Your task to perform on an android device: What's the weather? Image 0: 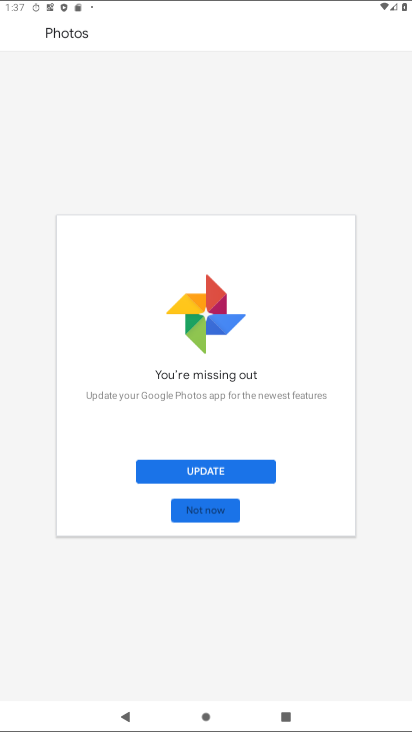
Step 0: press home button
Your task to perform on an android device: What's the weather? Image 1: 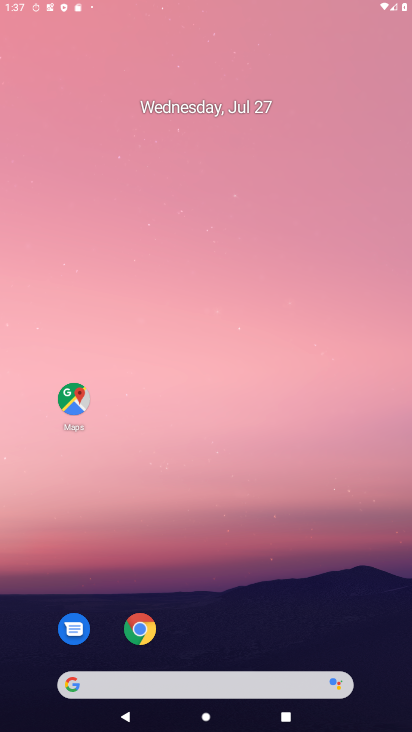
Step 1: drag from (375, 663) to (180, 17)
Your task to perform on an android device: What's the weather? Image 2: 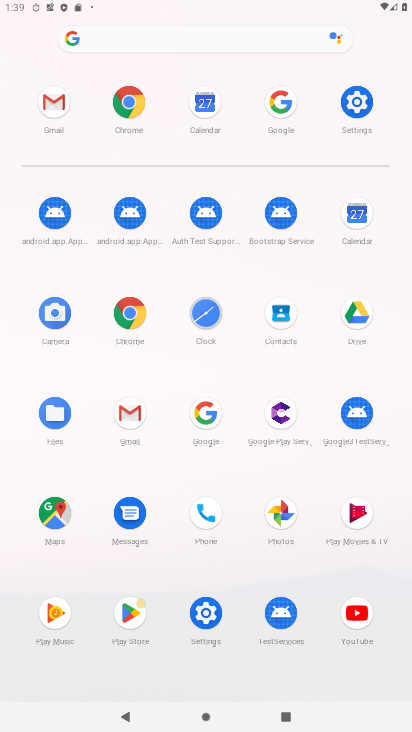
Step 2: click (195, 420)
Your task to perform on an android device: What's the weather? Image 3: 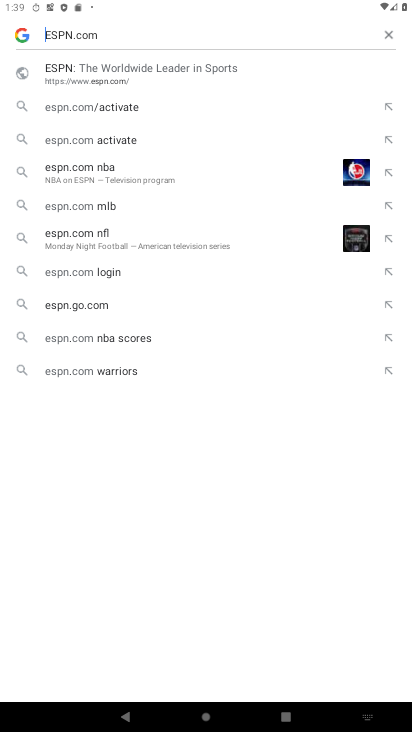
Step 3: click (385, 28)
Your task to perform on an android device: What's the weather? Image 4: 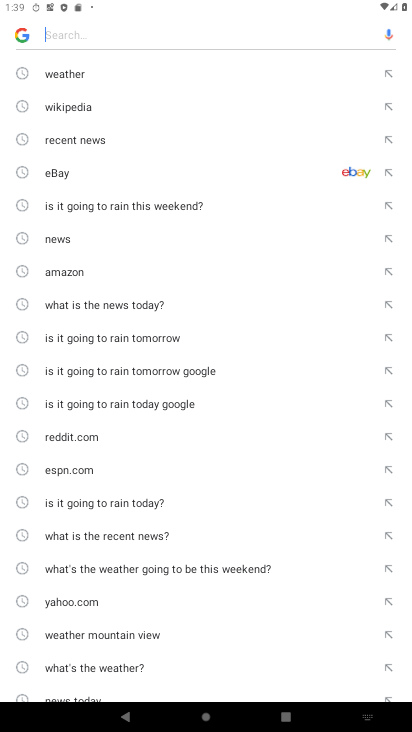
Step 4: click (108, 82)
Your task to perform on an android device: What's the weather? Image 5: 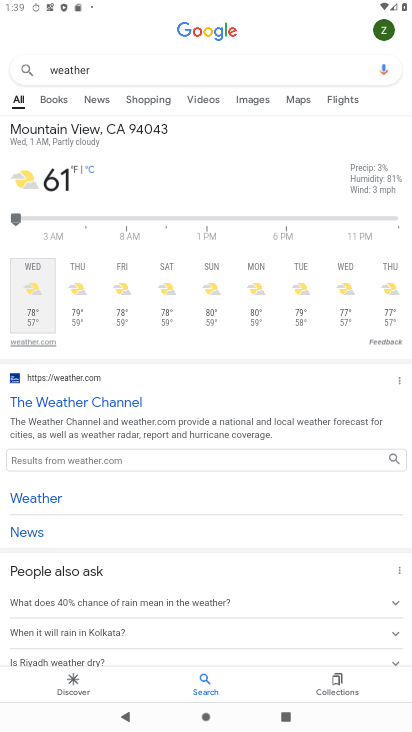
Step 5: task complete